Your task to perform on an android device: Open Chrome and go to settings Image 0: 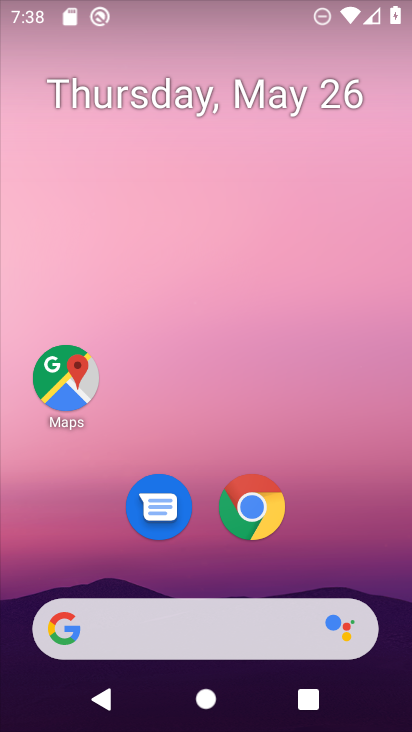
Step 0: click (253, 522)
Your task to perform on an android device: Open Chrome and go to settings Image 1: 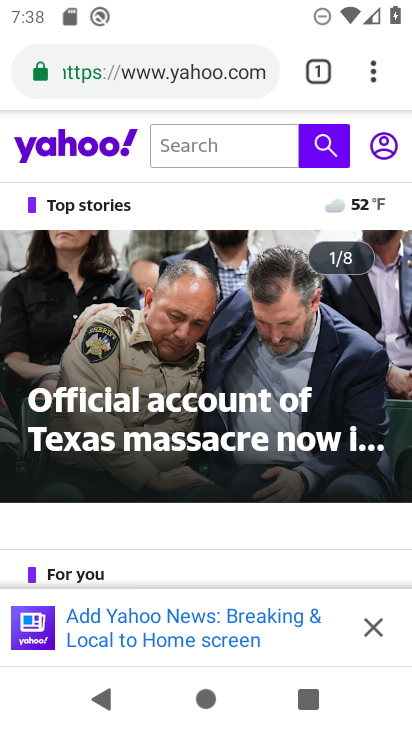
Step 1: click (370, 76)
Your task to perform on an android device: Open Chrome and go to settings Image 2: 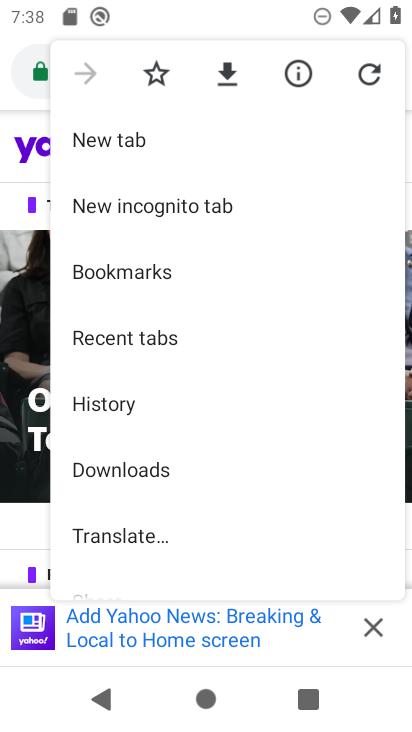
Step 2: drag from (153, 494) to (113, 132)
Your task to perform on an android device: Open Chrome and go to settings Image 3: 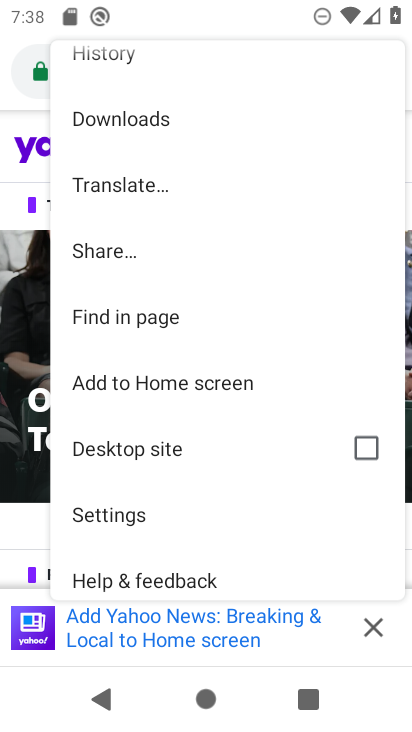
Step 3: click (106, 526)
Your task to perform on an android device: Open Chrome and go to settings Image 4: 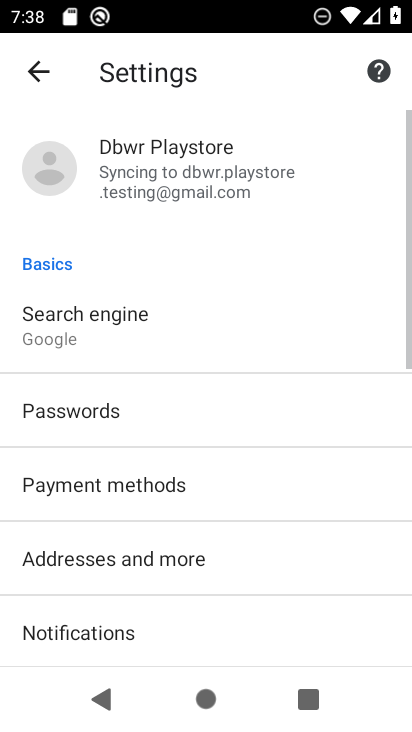
Step 4: task complete